Your task to perform on an android device: turn off location history Image 0: 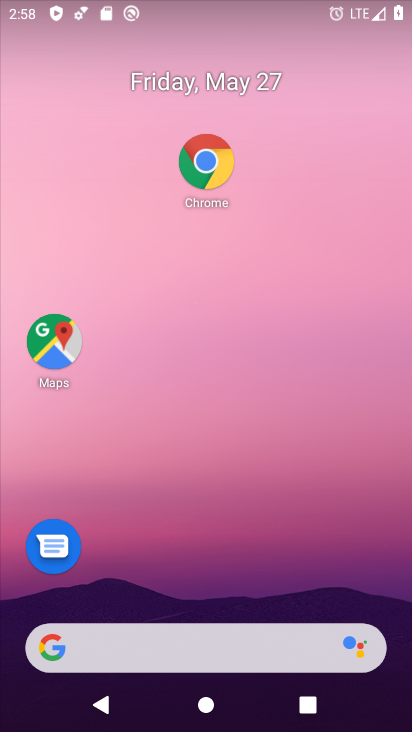
Step 0: drag from (156, 610) to (258, 179)
Your task to perform on an android device: turn off location history Image 1: 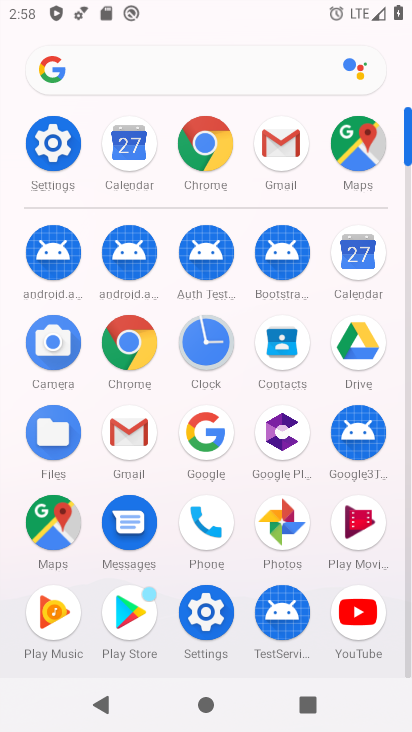
Step 1: click (55, 143)
Your task to perform on an android device: turn off location history Image 2: 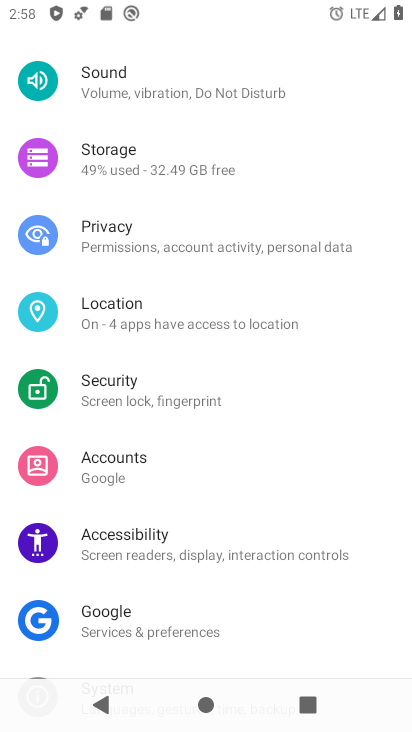
Step 2: drag from (168, 192) to (184, 567)
Your task to perform on an android device: turn off location history Image 3: 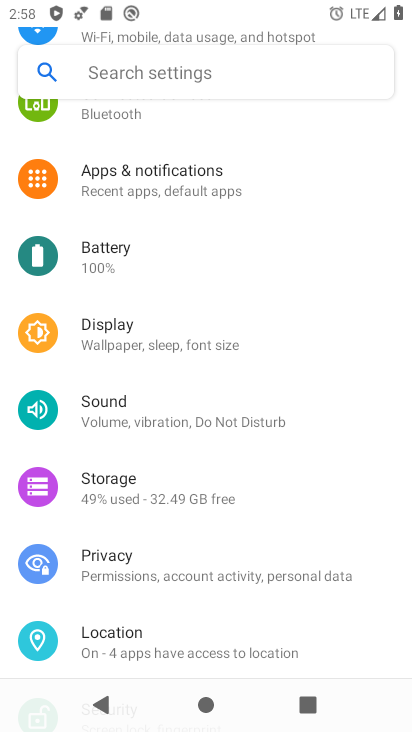
Step 3: click (153, 635)
Your task to perform on an android device: turn off location history Image 4: 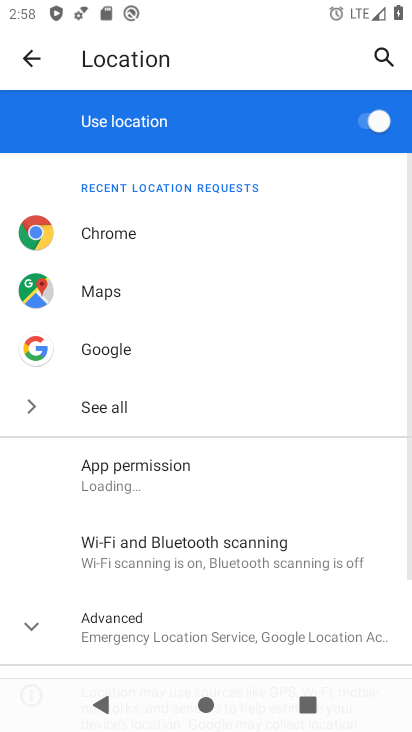
Step 4: click (368, 124)
Your task to perform on an android device: turn off location history Image 5: 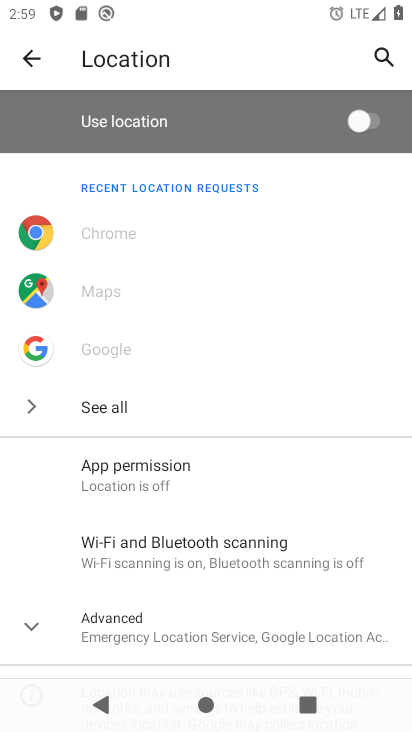
Step 5: task complete